Your task to perform on an android device: Open Reddit.com Image 0: 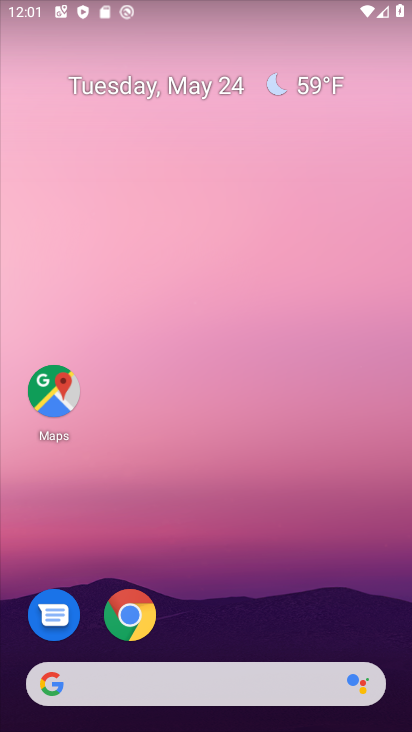
Step 0: drag from (231, 572) to (215, 36)
Your task to perform on an android device: Open Reddit.com Image 1: 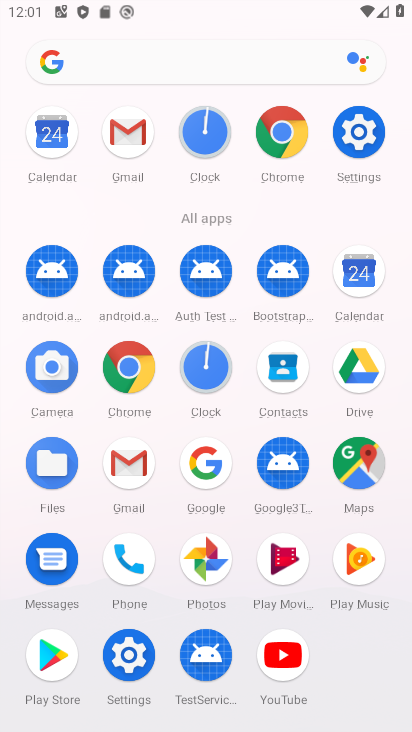
Step 1: click (136, 363)
Your task to perform on an android device: Open Reddit.com Image 2: 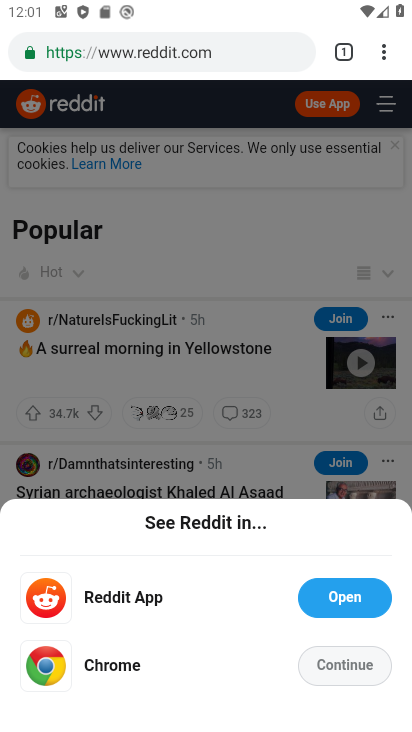
Step 2: task complete